Your task to perform on an android device: Go to battery settings Image 0: 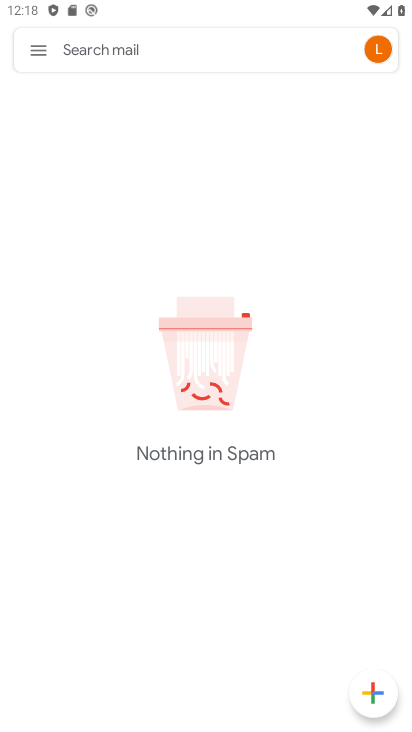
Step 0: press home button
Your task to perform on an android device: Go to battery settings Image 1: 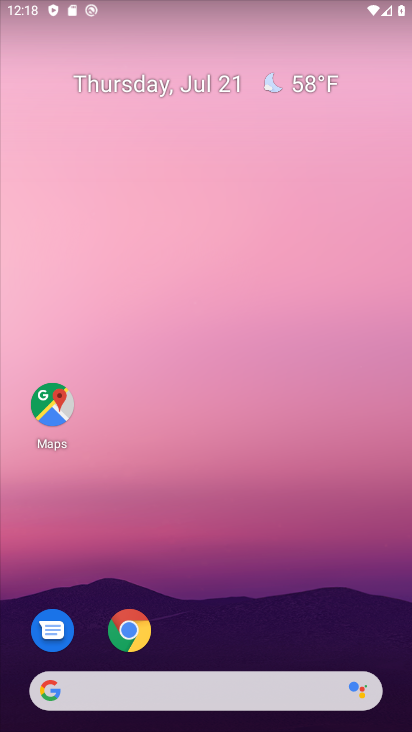
Step 1: drag from (218, 674) to (5, 138)
Your task to perform on an android device: Go to battery settings Image 2: 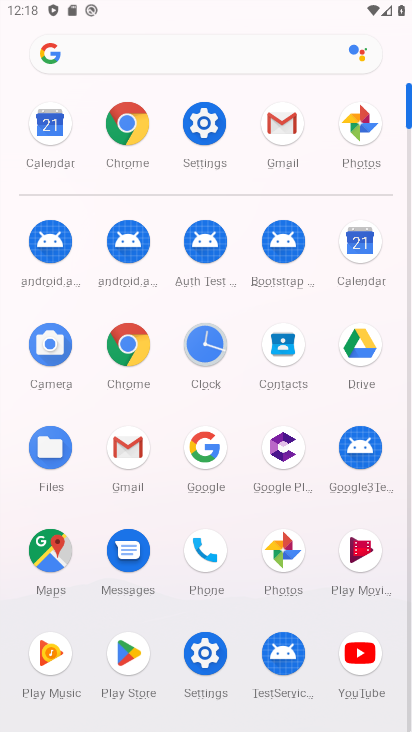
Step 2: click (219, 144)
Your task to perform on an android device: Go to battery settings Image 3: 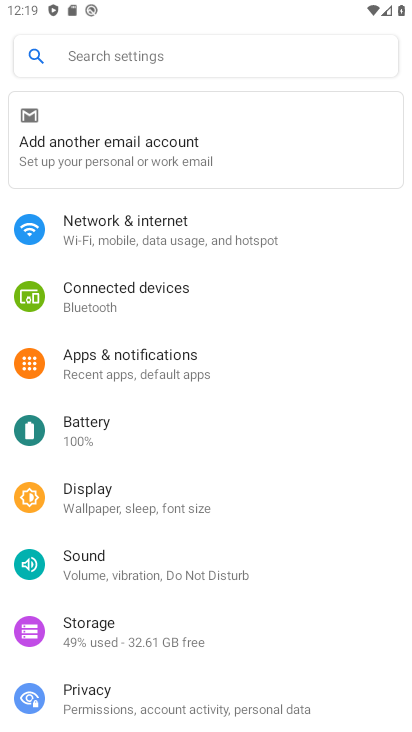
Step 3: click (87, 430)
Your task to perform on an android device: Go to battery settings Image 4: 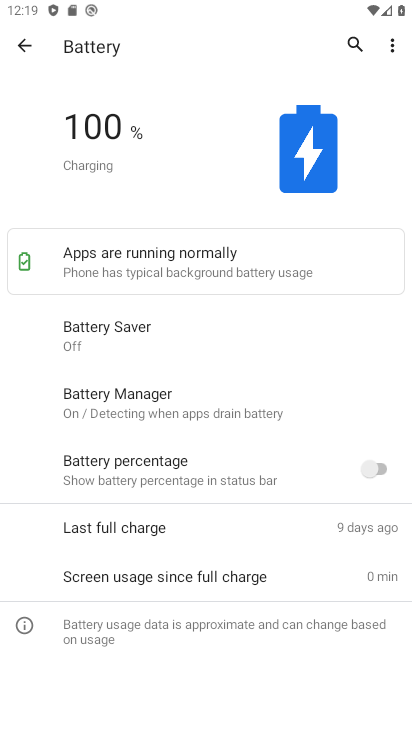
Step 4: task complete